Your task to perform on an android device: find snoozed emails in the gmail app Image 0: 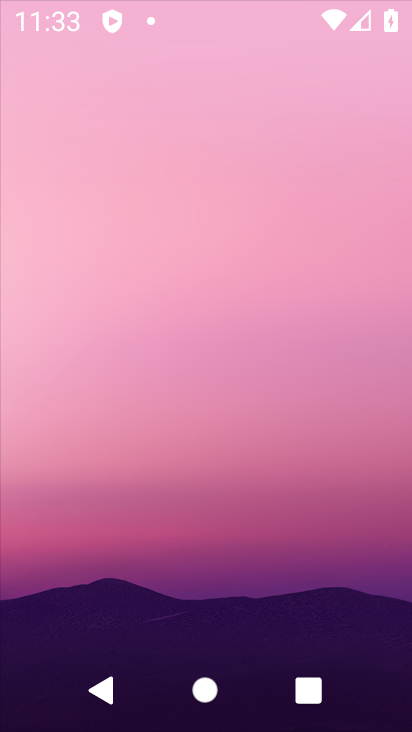
Step 0: press back button
Your task to perform on an android device: find snoozed emails in the gmail app Image 1: 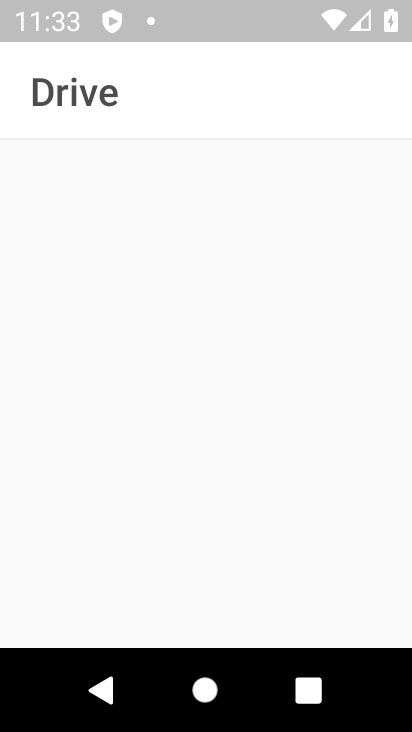
Step 1: press back button
Your task to perform on an android device: find snoozed emails in the gmail app Image 2: 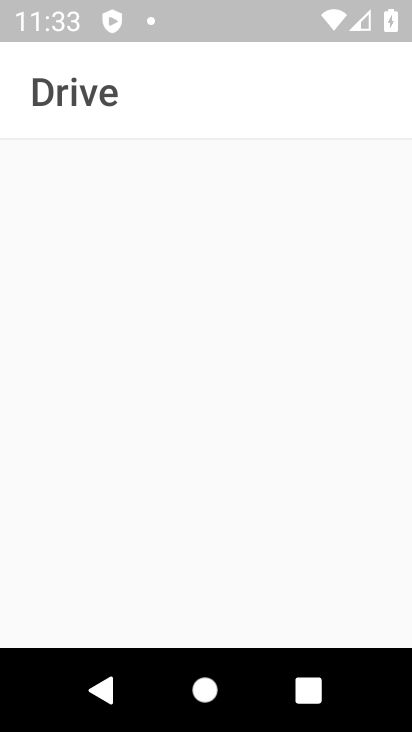
Step 2: press home button
Your task to perform on an android device: find snoozed emails in the gmail app Image 3: 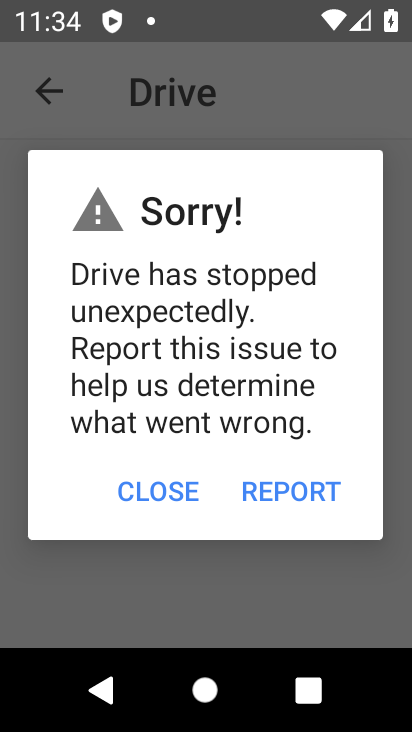
Step 3: press back button
Your task to perform on an android device: find snoozed emails in the gmail app Image 4: 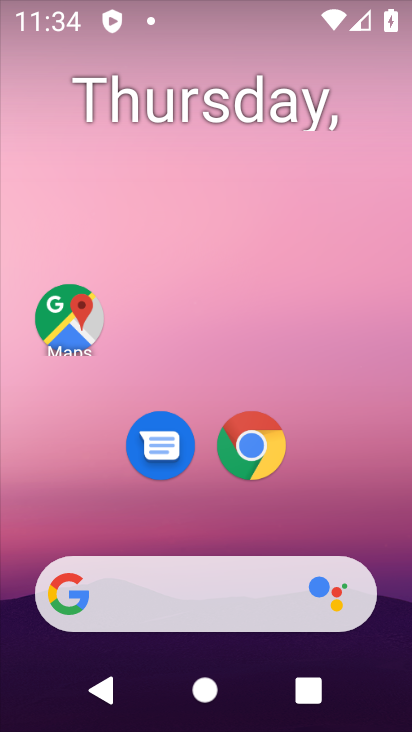
Step 4: drag from (258, 693) to (187, 57)
Your task to perform on an android device: find snoozed emails in the gmail app Image 5: 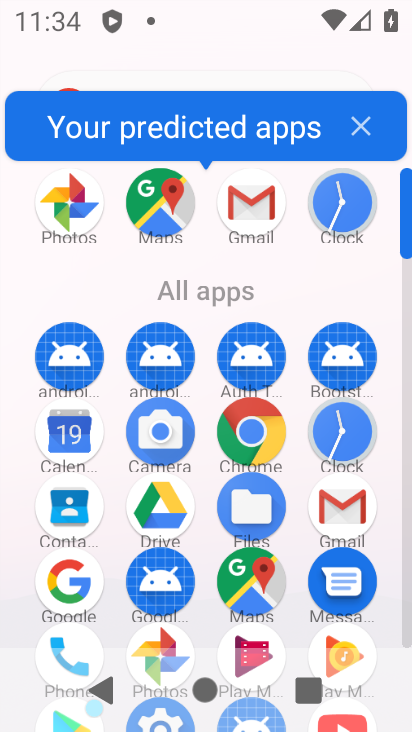
Step 5: click (335, 496)
Your task to perform on an android device: find snoozed emails in the gmail app Image 6: 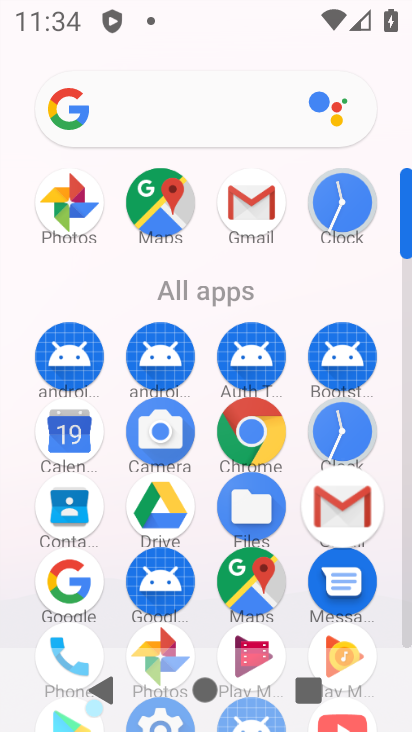
Step 6: click (334, 496)
Your task to perform on an android device: find snoozed emails in the gmail app Image 7: 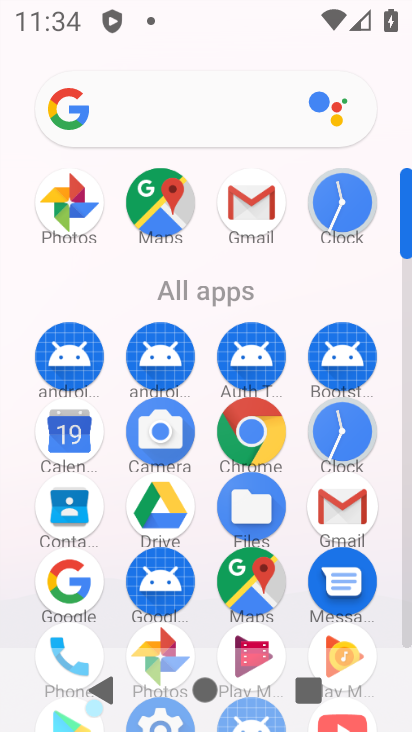
Step 7: click (334, 496)
Your task to perform on an android device: find snoozed emails in the gmail app Image 8: 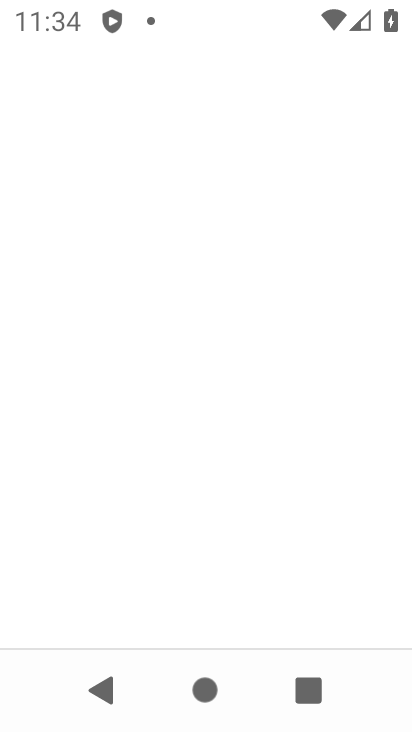
Step 8: click (334, 496)
Your task to perform on an android device: find snoozed emails in the gmail app Image 9: 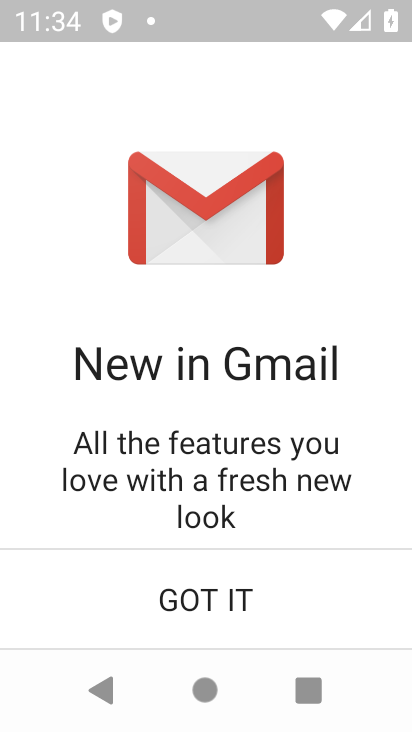
Step 9: click (196, 592)
Your task to perform on an android device: find snoozed emails in the gmail app Image 10: 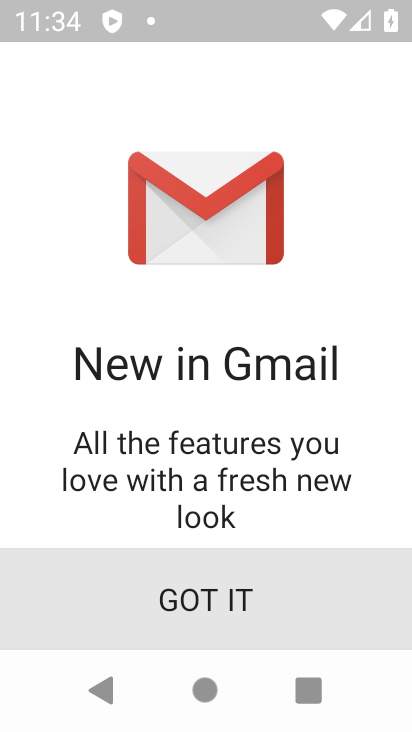
Step 10: click (201, 591)
Your task to perform on an android device: find snoozed emails in the gmail app Image 11: 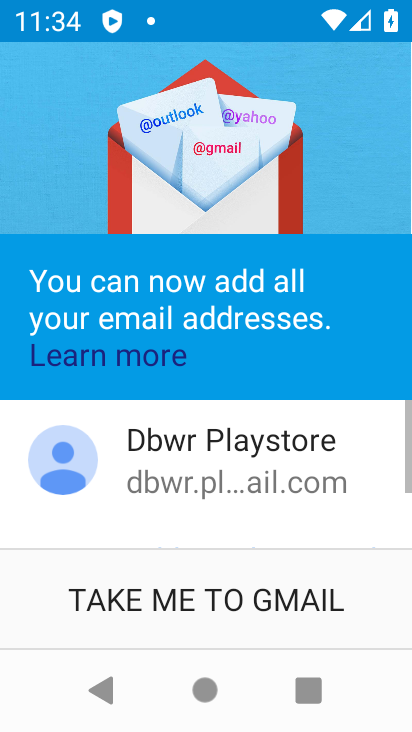
Step 11: click (203, 590)
Your task to perform on an android device: find snoozed emails in the gmail app Image 12: 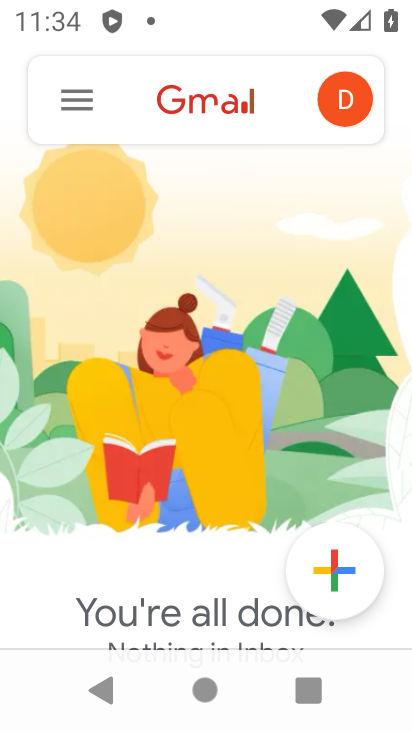
Step 12: click (72, 113)
Your task to perform on an android device: find snoozed emails in the gmail app Image 13: 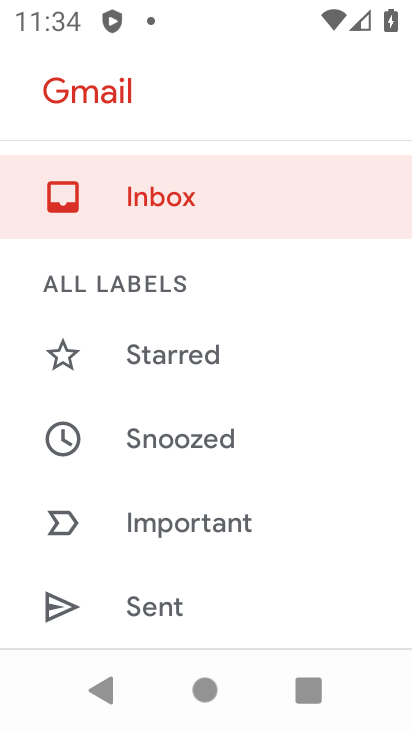
Step 13: click (217, 415)
Your task to perform on an android device: find snoozed emails in the gmail app Image 14: 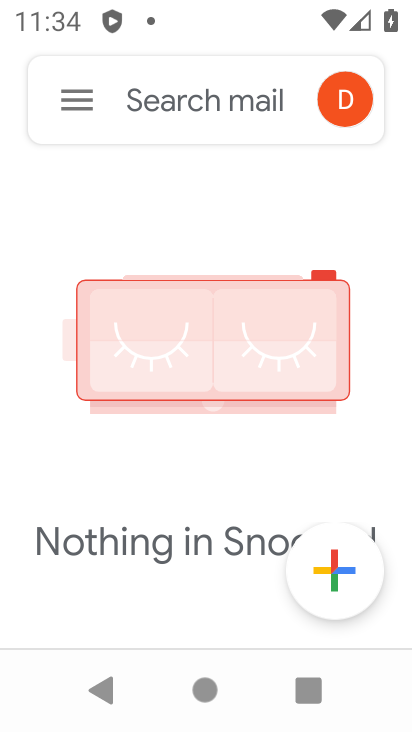
Step 14: task complete